Your task to perform on an android device: change text size in settings app Image 0: 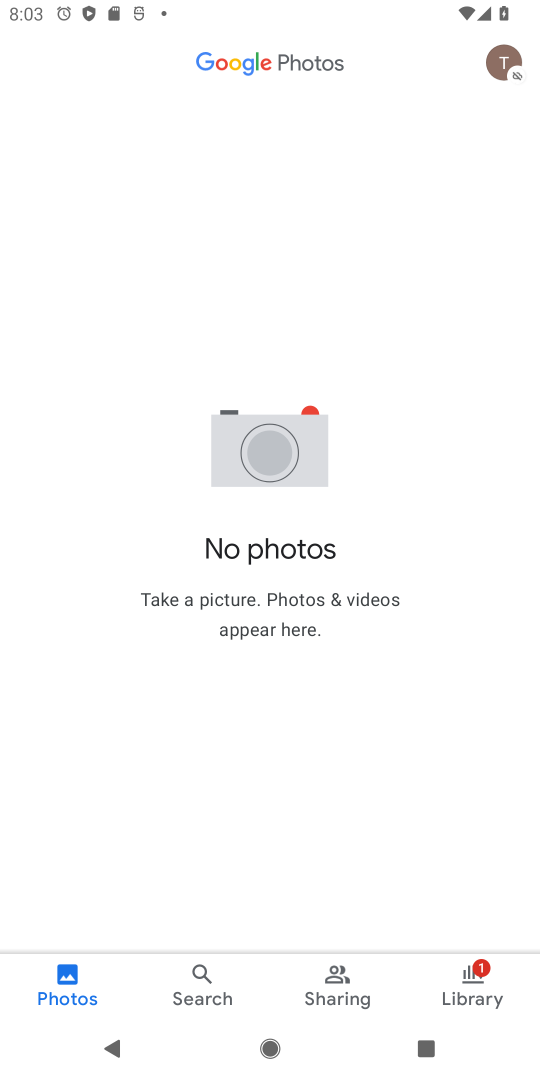
Step 0: press back button
Your task to perform on an android device: change text size in settings app Image 1: 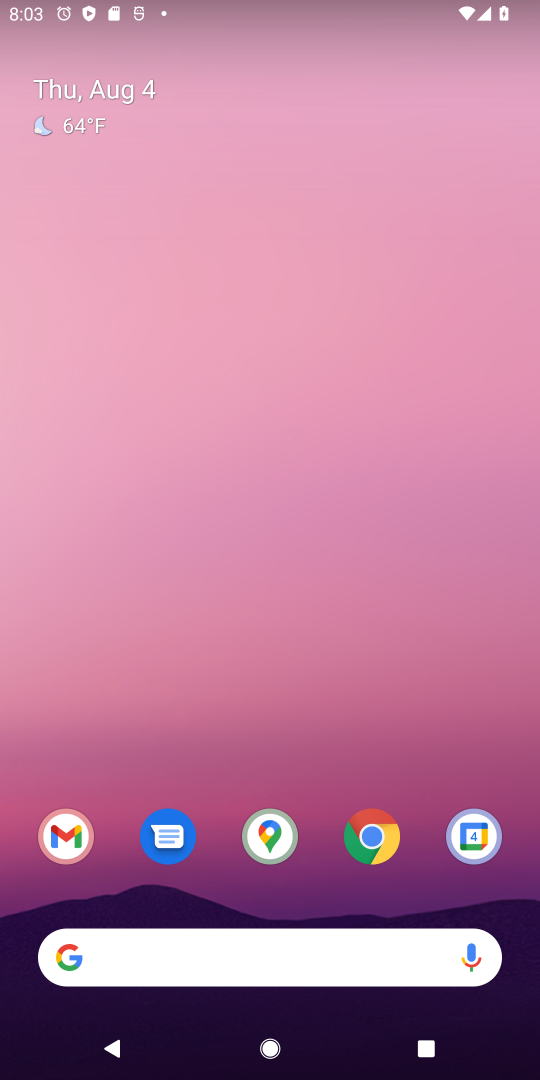
Step 1: drag from (253, 816) to (333, 46)
Your task to perform on an android device: change text size in settings app Image 2: 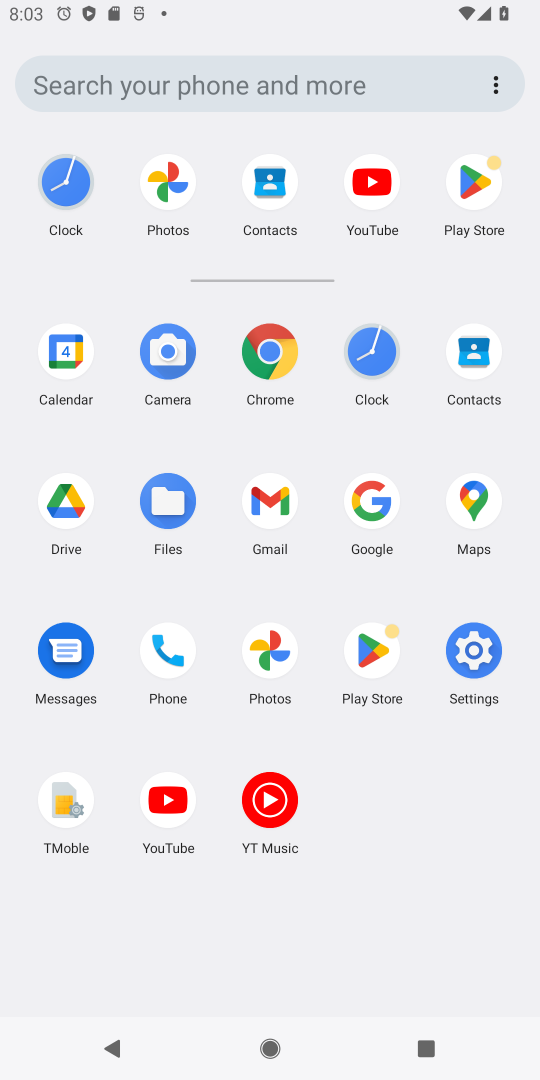
Step 2: click (469, 656)
Your task to perform on an android device: change text size in settings app Image 3: 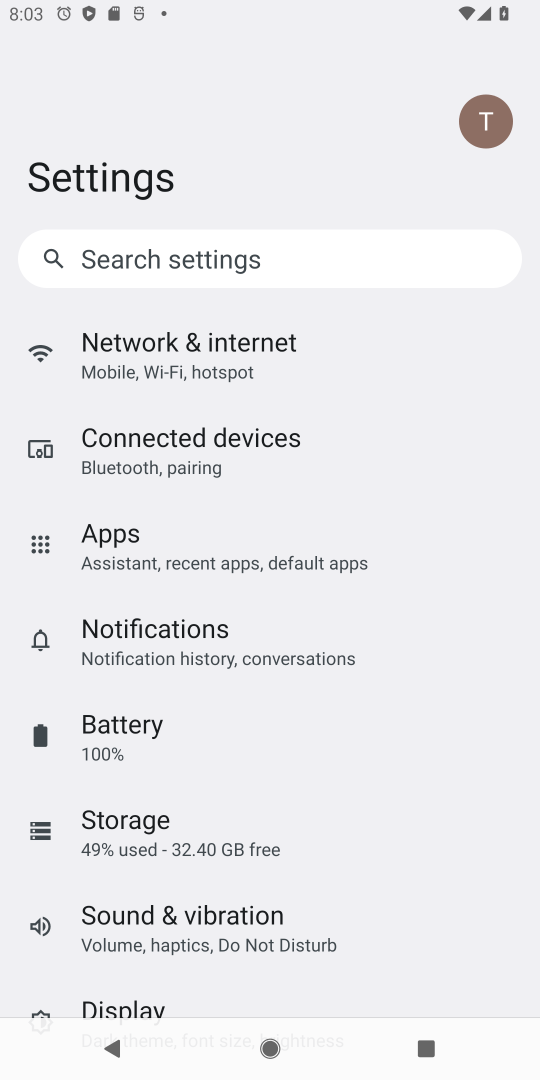
Step 3: click (208, 258)
Your task to perform on an android device: change text size in settings app Image 4: 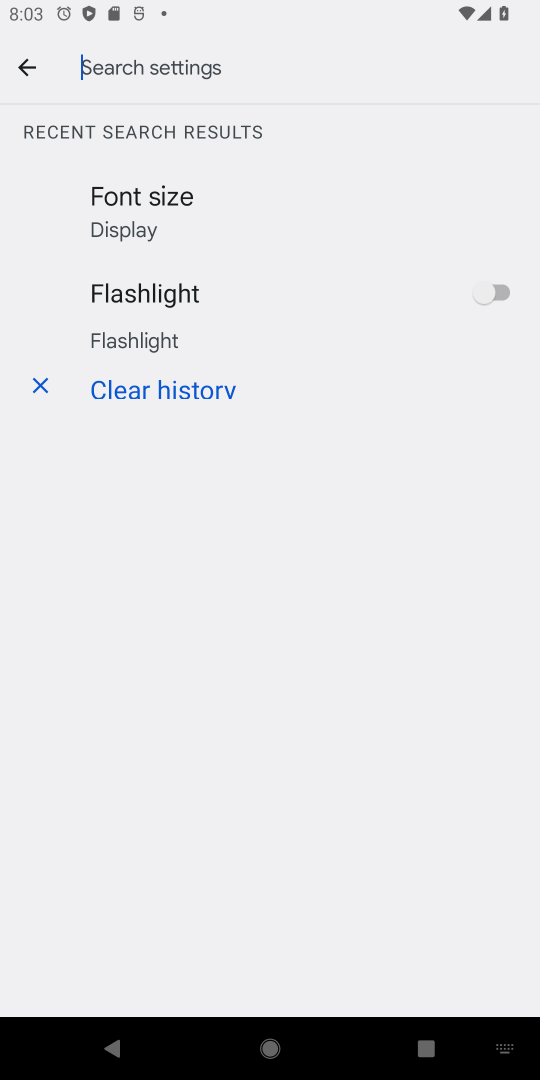
Step 4: type "text size"
Your task to perform on an android device: change text size in settings app Image 5: 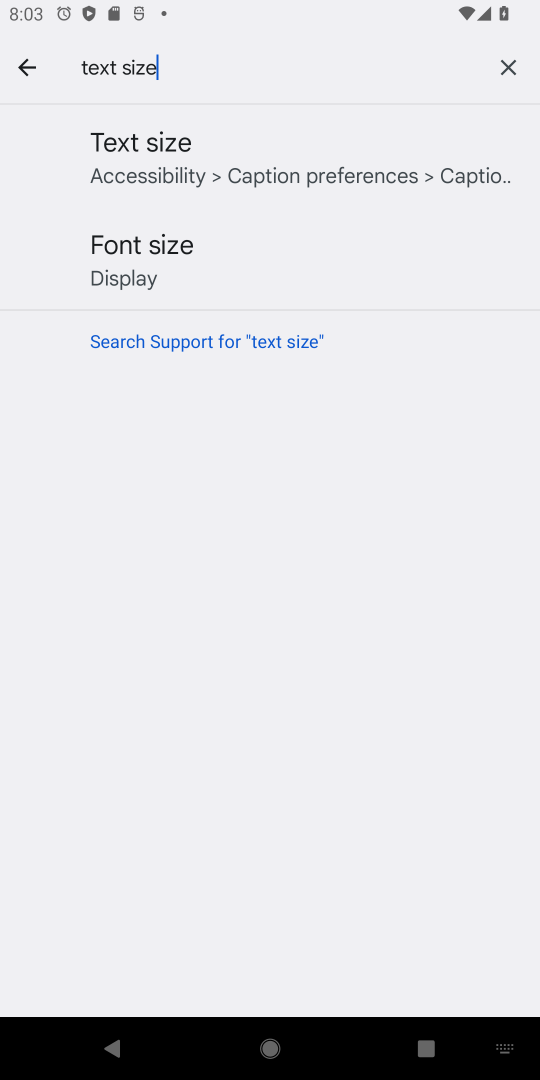
Step 5: click (207, 180)
Your task to perform on an android device: change text size in settings app Image 6: 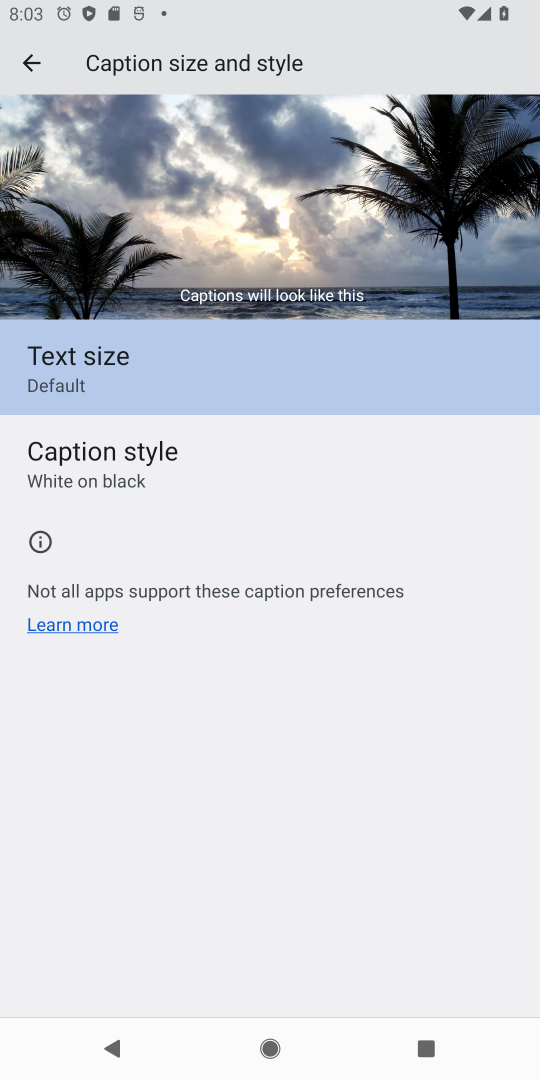
Step 6: click (162, 383)
Your task to perform on an android device: change text size in settings app Image 7: 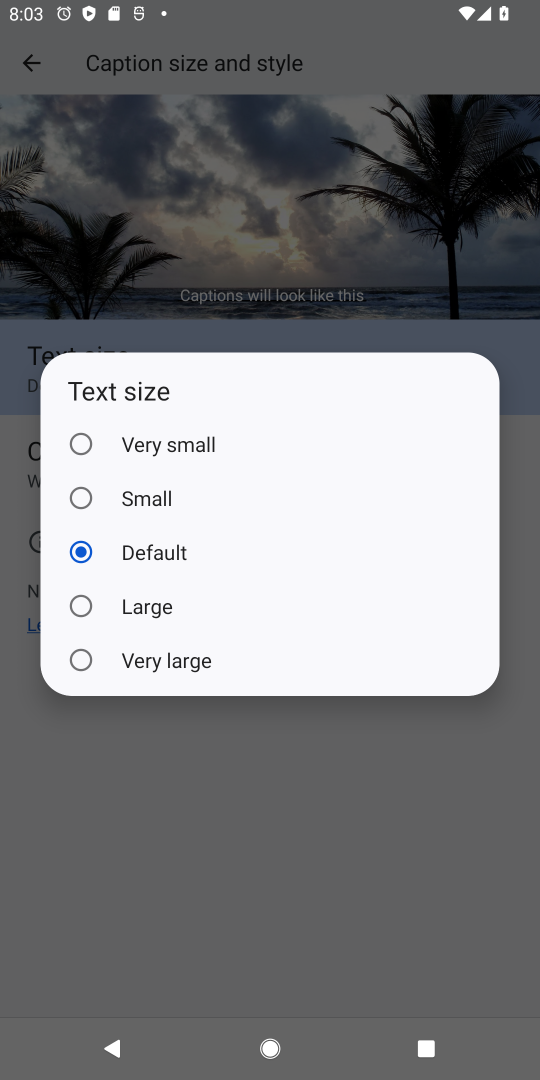
Step 7: click (76, 609)
Your task to perform on an android device: change text size in settings app Image 8: 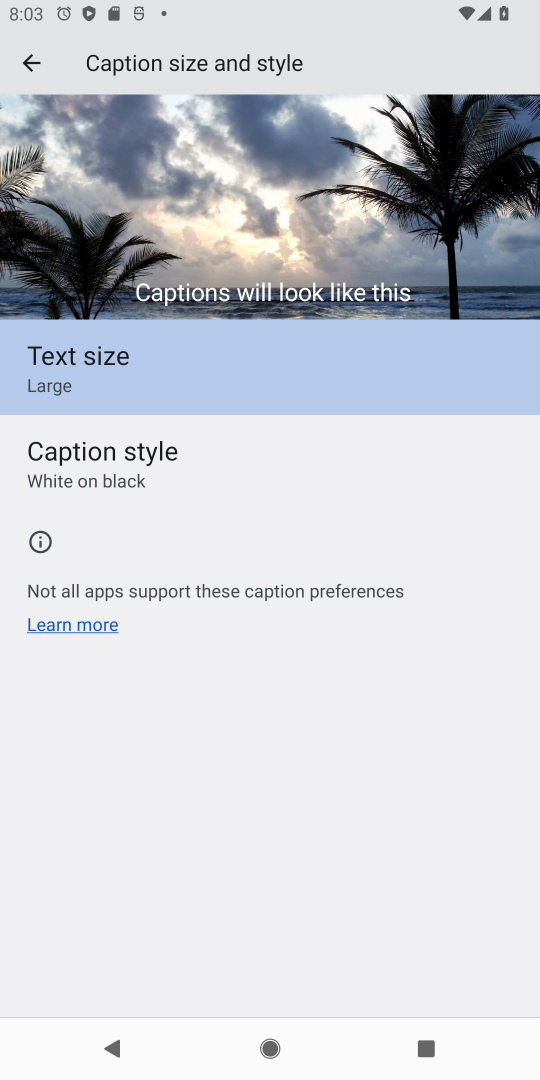
Step 8: task complete